Your task to perform on an android device: Open wifi settings Image 0: 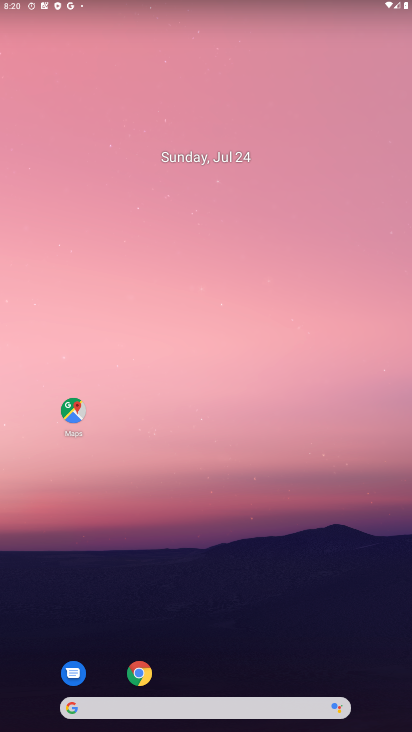
Step 0: drag from (44, 675) to (295, 76)
Your task to perform on an android device: Open wifi settings Image 1: 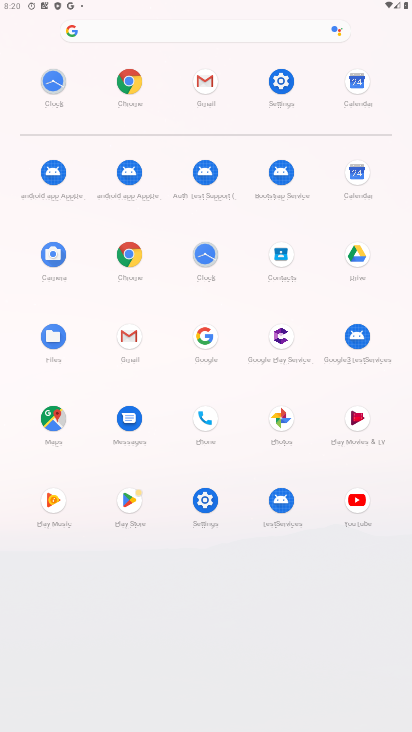
Step 1: click (207, 512)
Your task to perform on an android device: Open wifi settings Image 2: 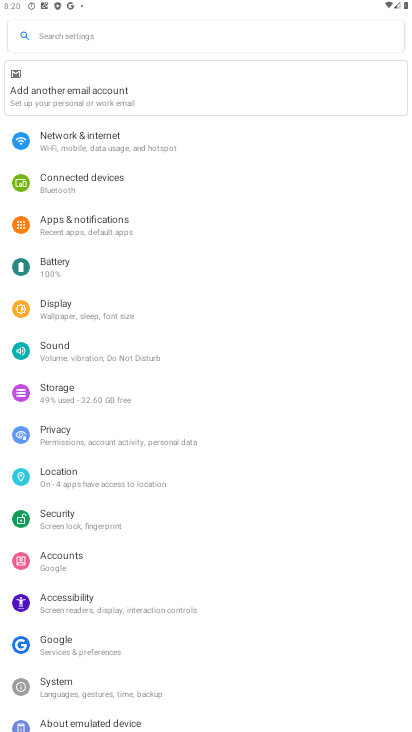
Step 2: click (72, 140)
Your task to perform on an android device: Open wifi settings Image 3: 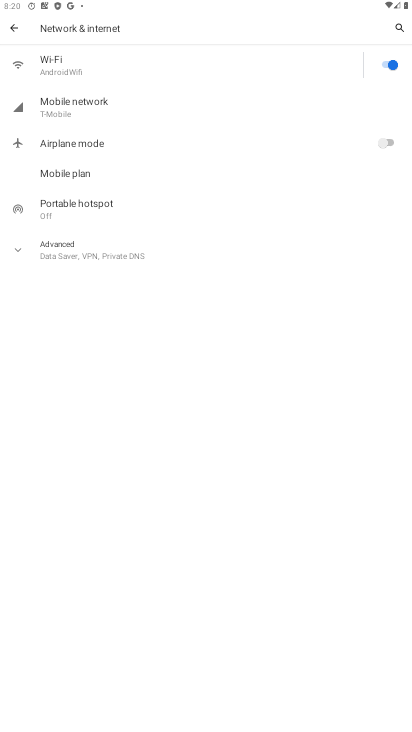
Step 3: task complete